Your task to perform on an android device: change the clock display to analog Image 0: 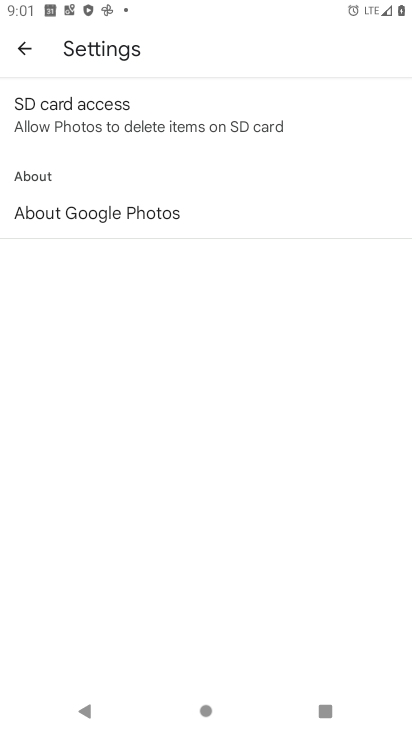
Step 0: press home button
Your task to perform on an android device: change the clock display to analog Image 1: 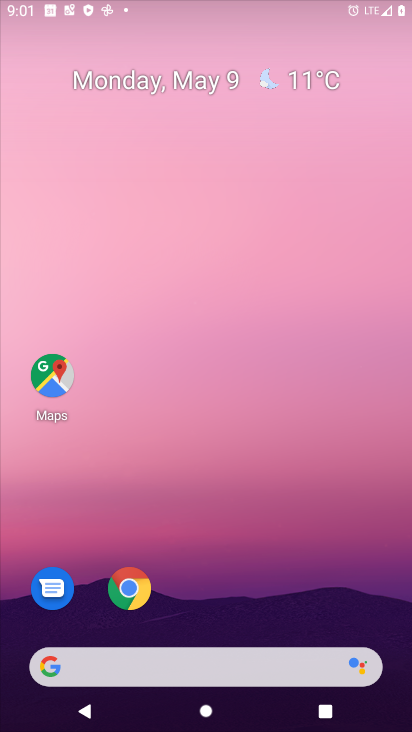
Step 1: drag from (320, 608) to (220, 54)
Your task to perform on an android device: change the clock display to analog Image 2: 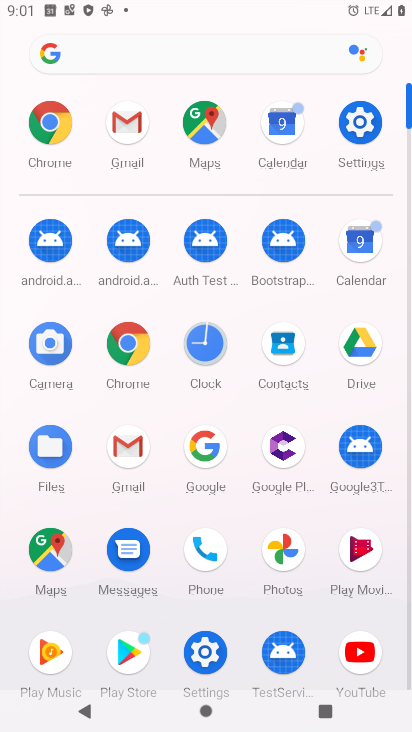
Step 2: click (199, 348)
Your task to perform on an android device: change the clock display to analog Image 3: 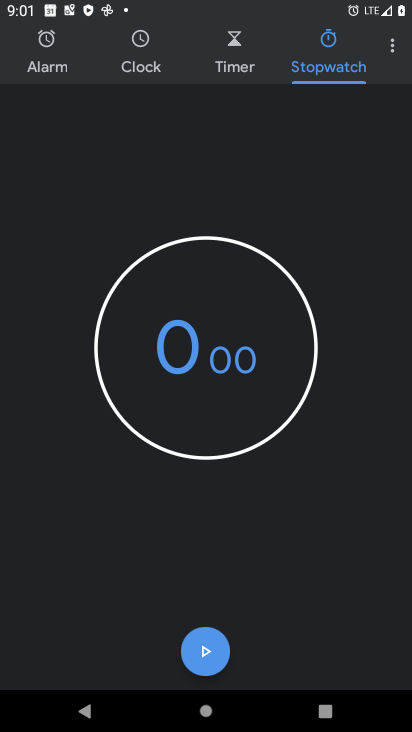
Step 3: click (385, 40)
Your task to perform on an android device: change the clock display to analog Image 4: 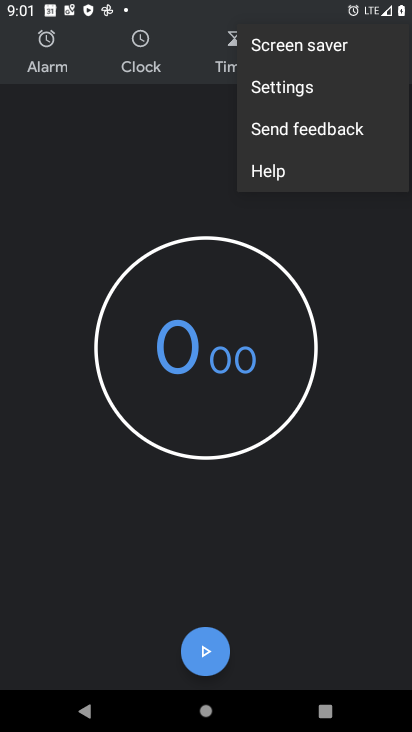
Step 4: click (330, 83)
Your task to perform on an android device: change the clock display to analog Image 5: 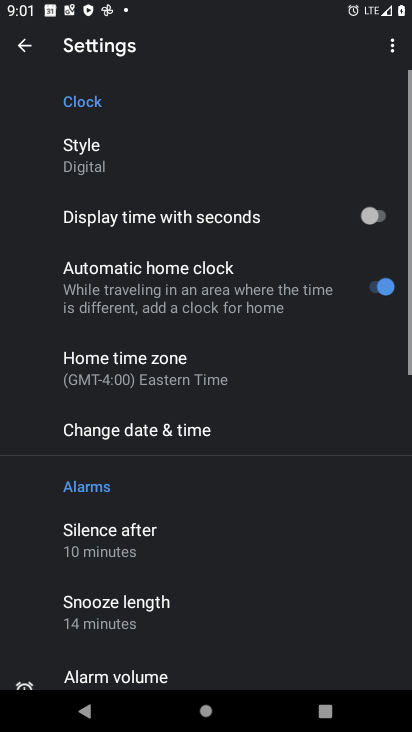
Step 5: click (146, 146)
Your task to perform on an android device: change the clock display to analog Image 6: 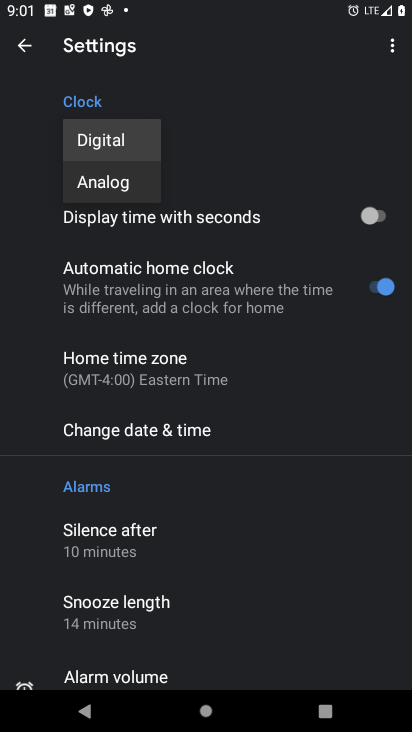
Step 6: click (118, 176)
Your task to perform on an android device: change the clock display to analog Image 7: 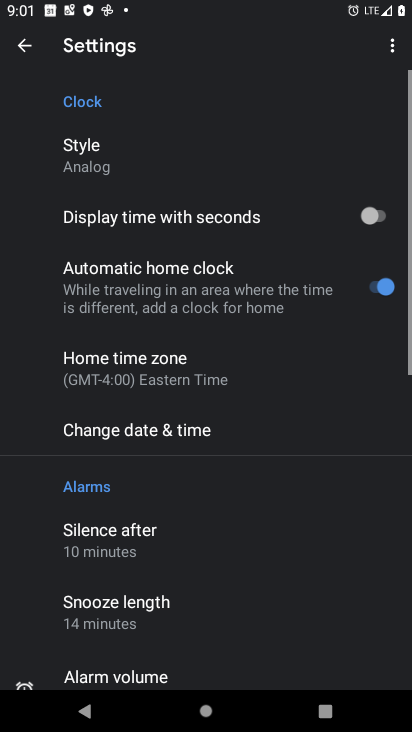
Step 7: task complete